Your task to perform on an android device: turn on notifications settings in the gmail app Image 0: 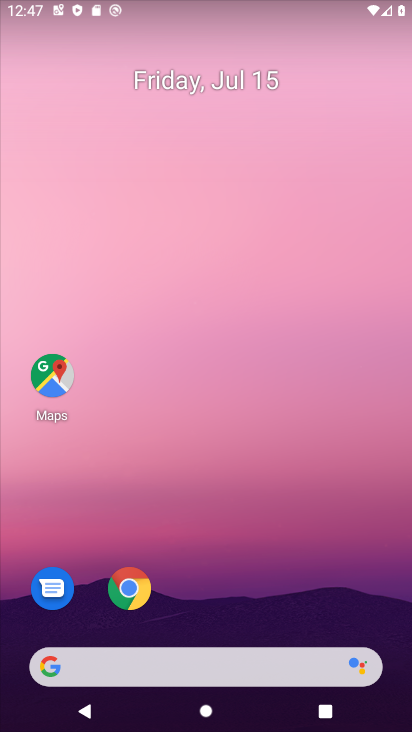
Step 0: drag from (224, 528) to (310, 18)
Your task to perform on an android device: turn on notifications settings in the gmail app Image 1: 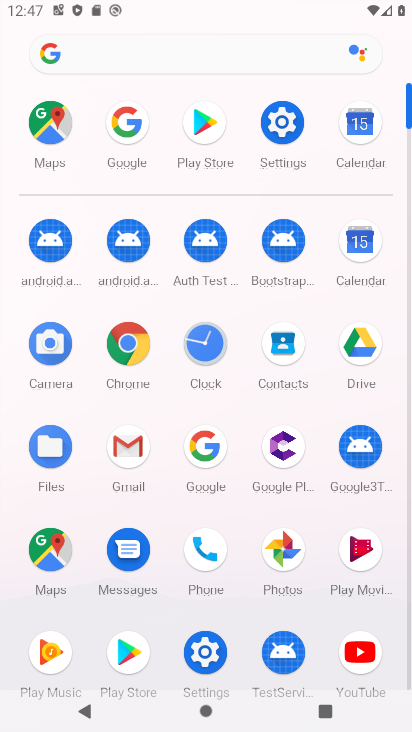
Step 1: click (132, 453)
Your task to perform on an android device: turn on notifications settings in the gmail app Image 2: 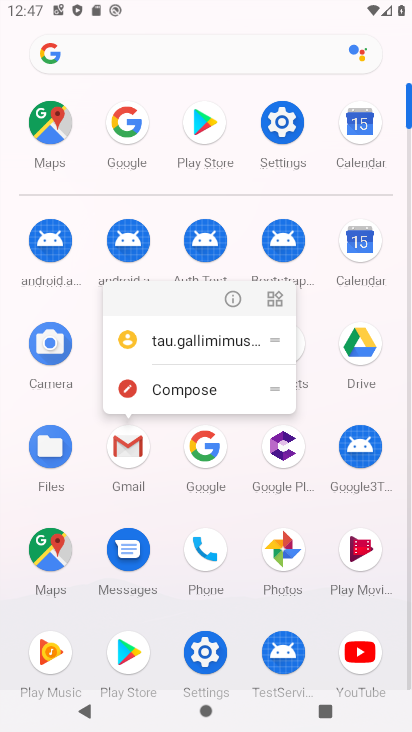
Step 2: click (236, 305)
Your task to perform on an android device: turn on notifications settings in the gmail app Image 3: 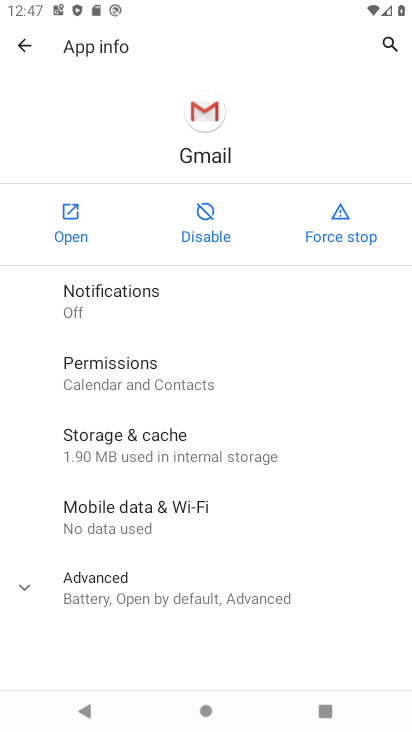
Step 3: click (195, 297)
Your task to perform on an android device: turn on notifications settings in the gmail app Image 4: 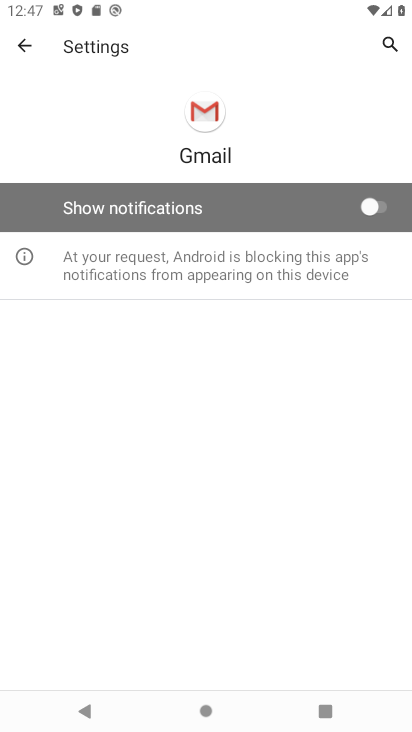
Step 4: click (376, 202)
Your task to perform on an android device: turn on notifications settings in the gmail app Image 5: 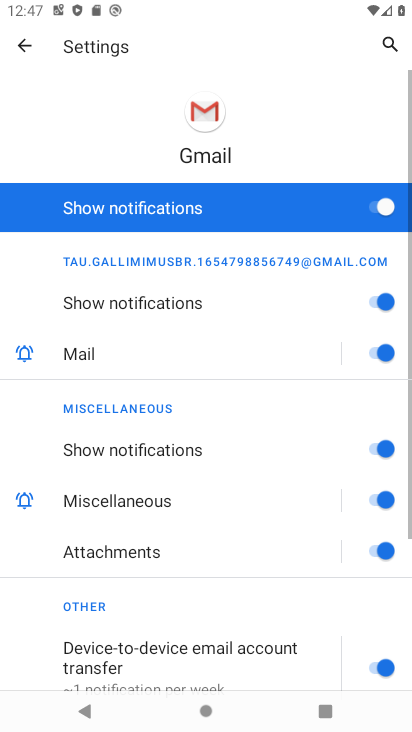
Step 5: task complete